Your task to perform on an android device: check storage Image 0: 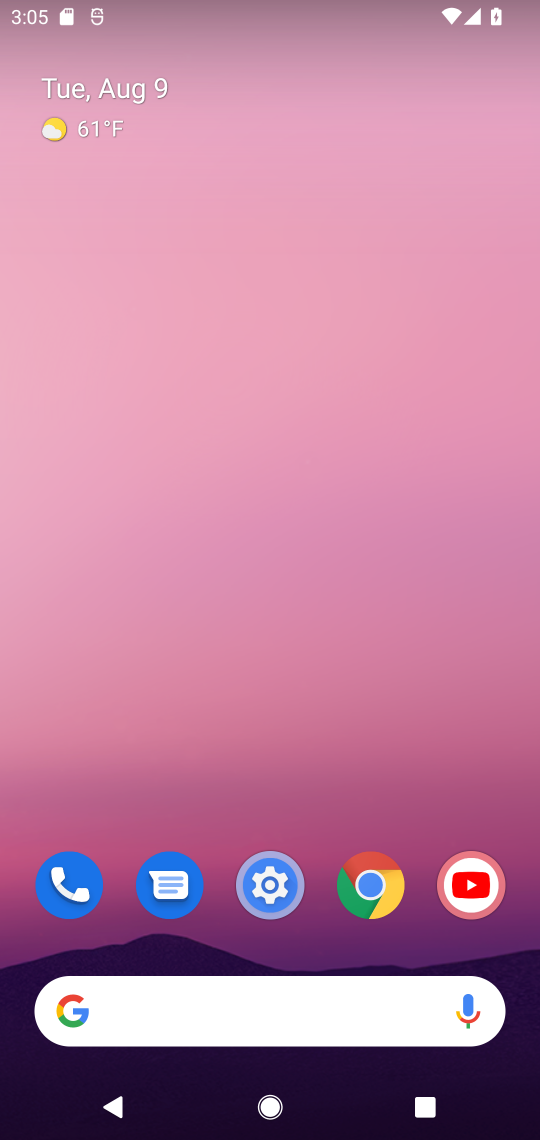
Step 0: click (271, 886)
Your task to perform on an android device: check storage Image 1: 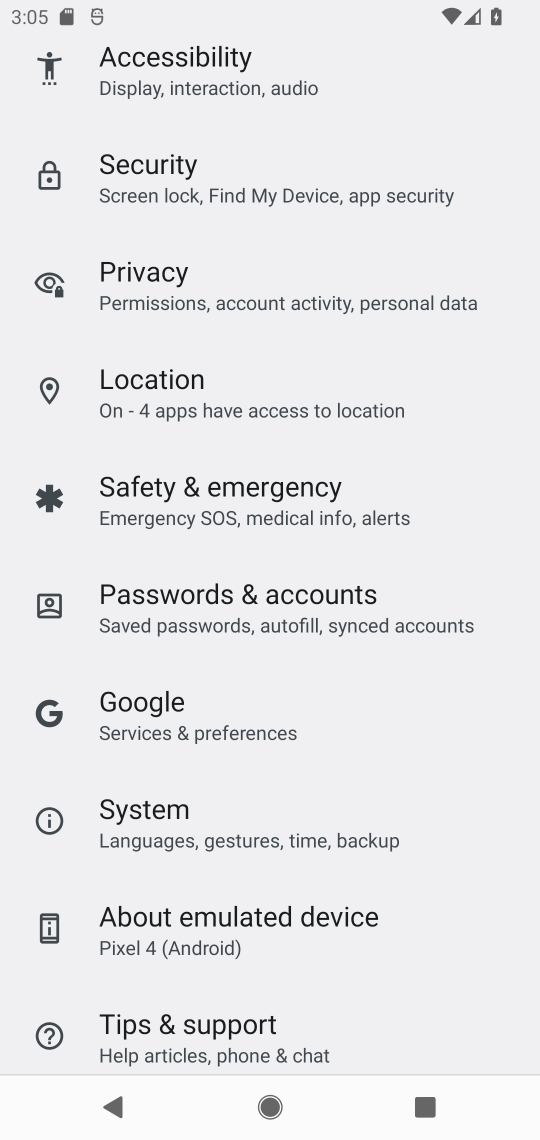
Step 1: task complete